Your task to perform on an android device: Open sound settings Image 0: 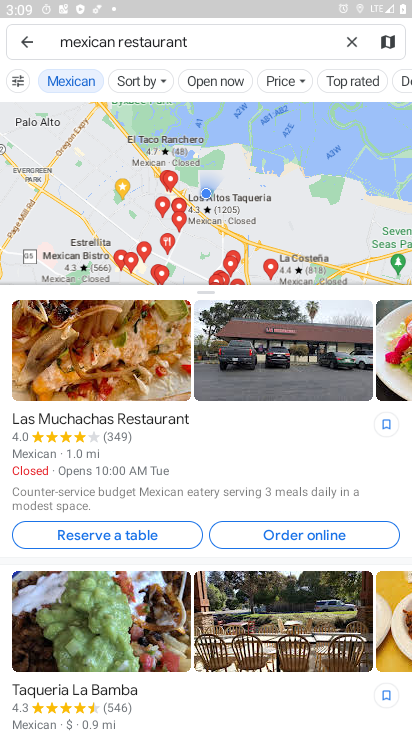
Step 0: press home button
Your task to perform on an android device: Open sound settings Image 1: 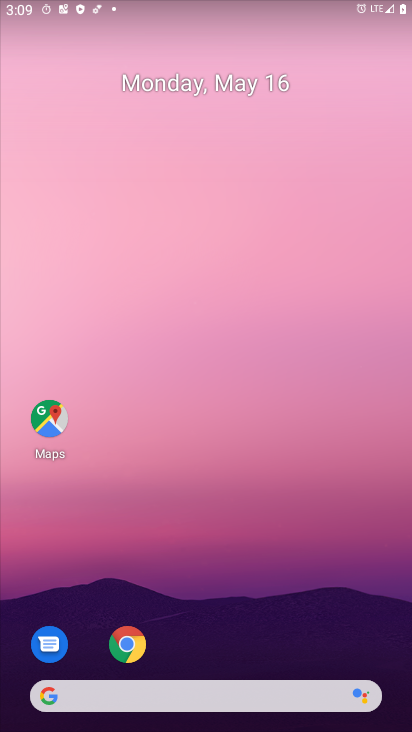
Step 1: drag from (234, 551) to (291, 171)
Your task to perform on an android device: Open sound settings Image 2: 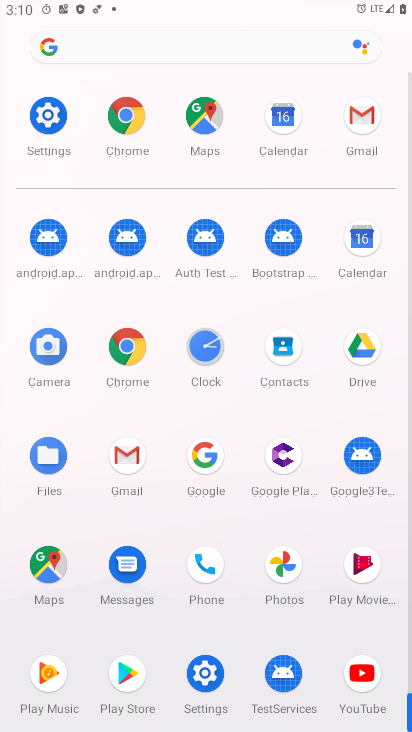
Step 2: click (46, 135)
Your task to perform on an android device: Open sound settings Image 3: 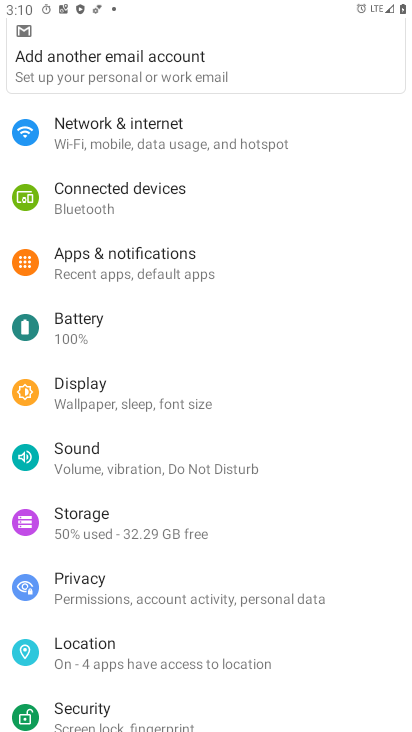
Step 3: drag from (145, 376) to (181, 277)
Your task to perform on an android device: Open sound settings Image 4: 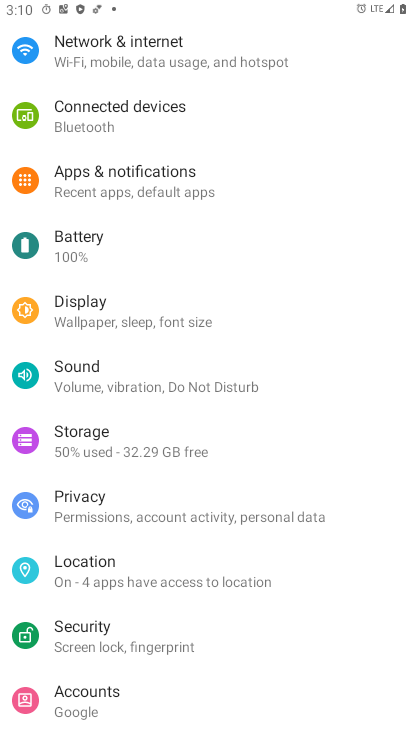
Step 4: click (187, 372)
Your task to perform on an android device: Open sound settings Image 5: 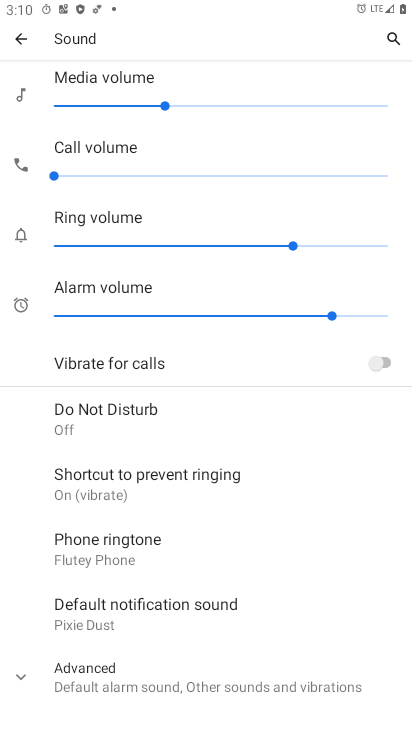
Step 5: task complete